Your task to perform on an android device: Go to settings Image 0: 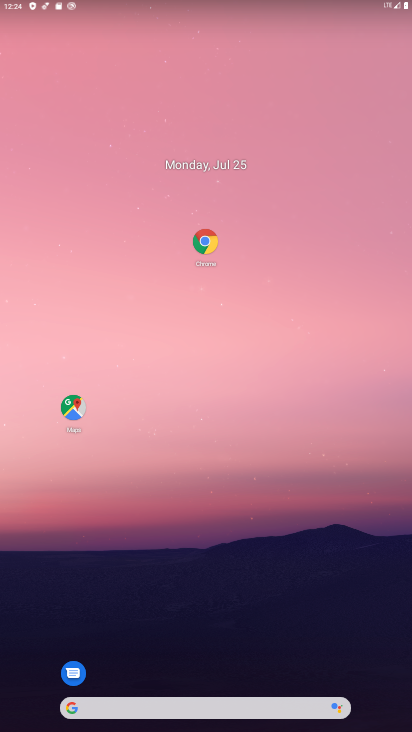
Step 0: drag from (223, 625) to (382, 5)
Your task to perform on an android device: Go to settings Image 1: 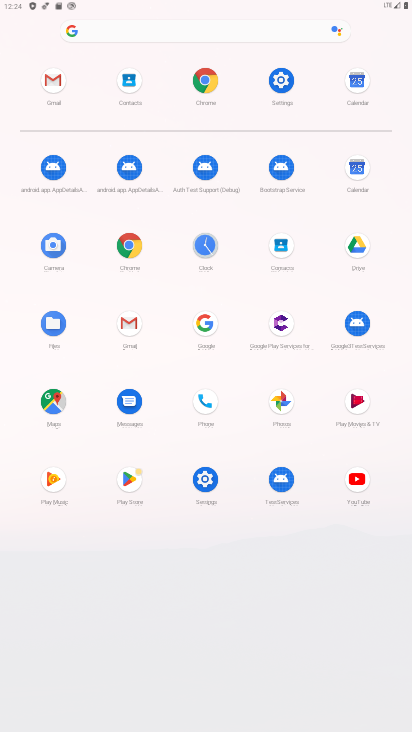
Step 1: click (284, 71)
Your task to perform on an android device: Go to settings Image 2: 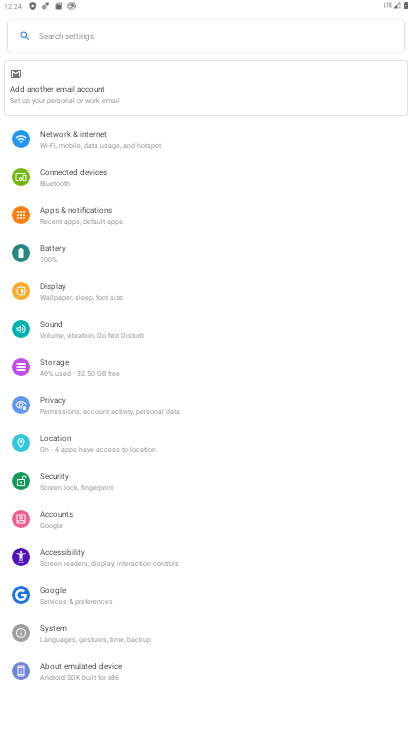
Step 2: task complete